Your task to perform on an android device: change the clock style Image 0: 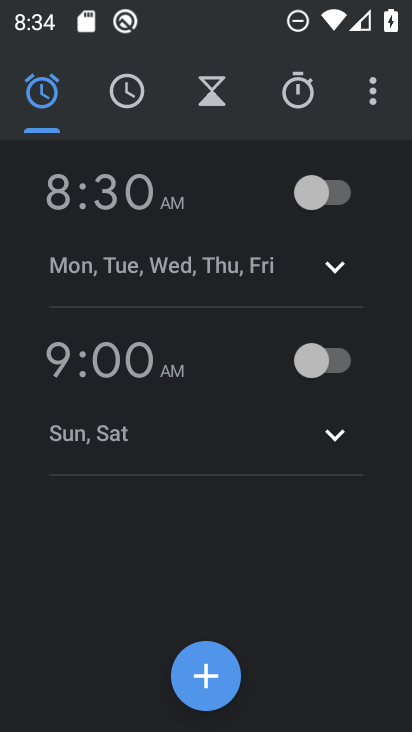
Step 0: click (369, 85)
Your task to perform on an android device: change the clock style Image 1: 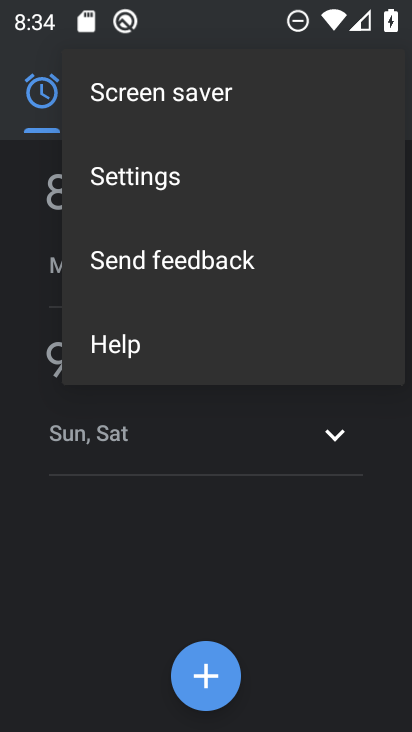
Step 1: click (193, 176)
Your task to perform on an android device: change the clock style Image 2: 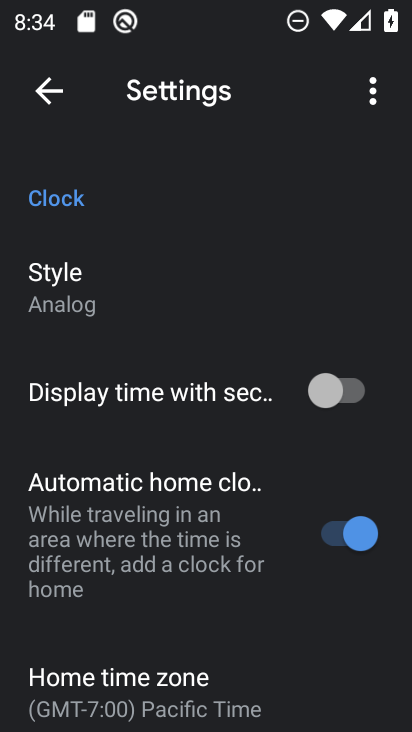
Step 2: click (130, 308)
Your task to perform on an android device: change the clock style Image 3: 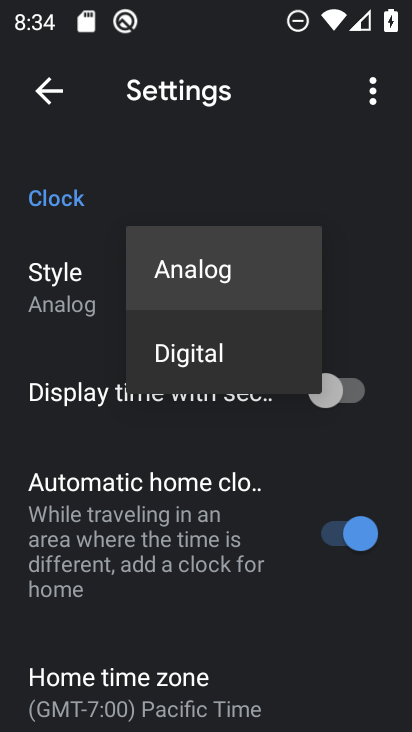
Step 3: click (214, 273)
Your task to perform on an android device: change the clock style Image 4: 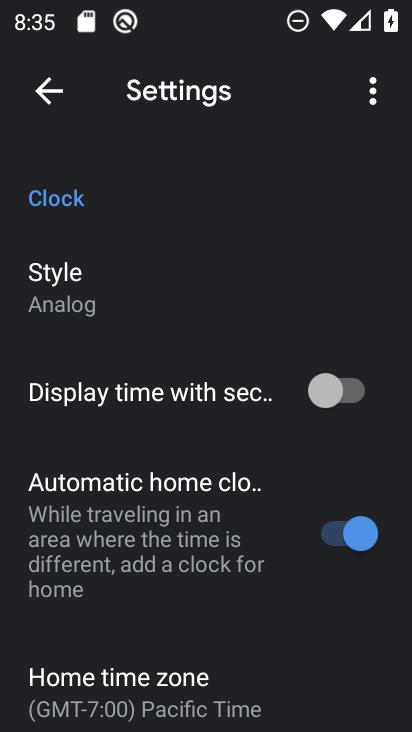
Step 4: task complete